Your task to perform on an android device: change timer sound Image 0: 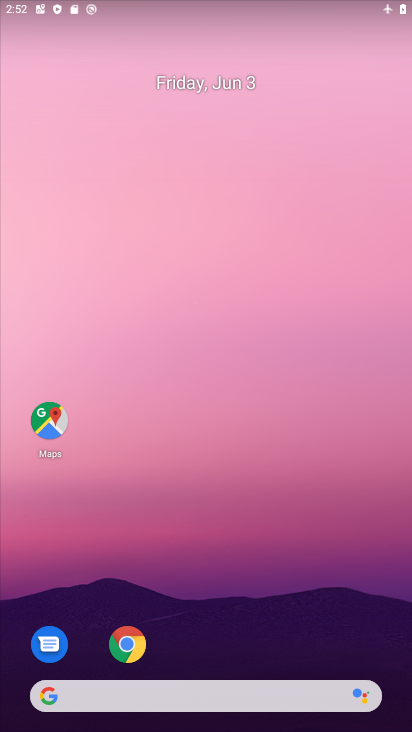
Step 0: drag from (210, 648) to (246, 368)
Your task to perform on an android device: change timer sound Image 1: 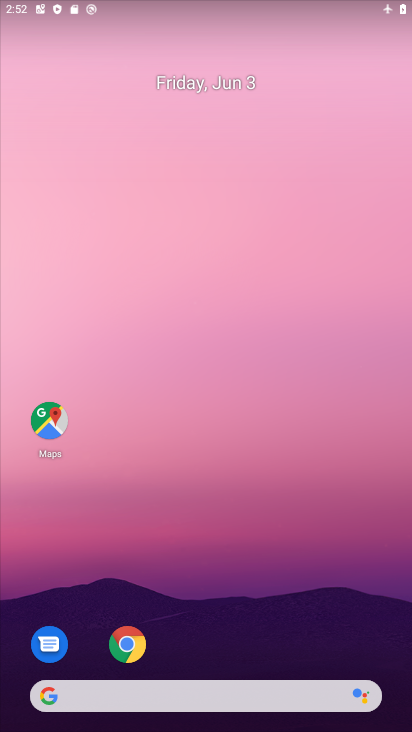
Step 1: drag from (172, 655) to (176, 317)
Your task to perform on an android device: change timer sound Image 2: 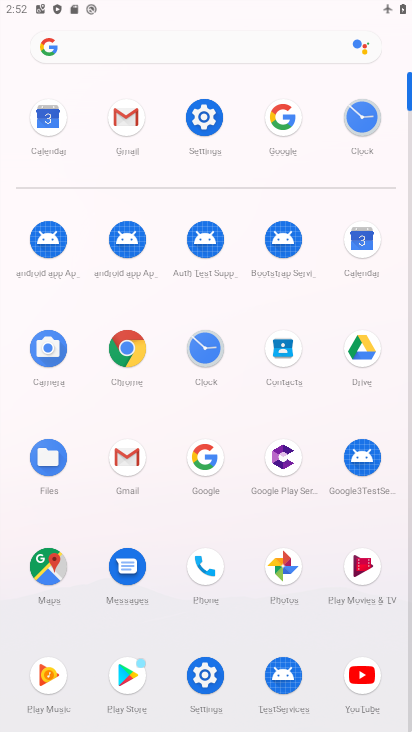
Step 2: click (357, 130)
Your task to perform on an android device: change timer sound Image 3: 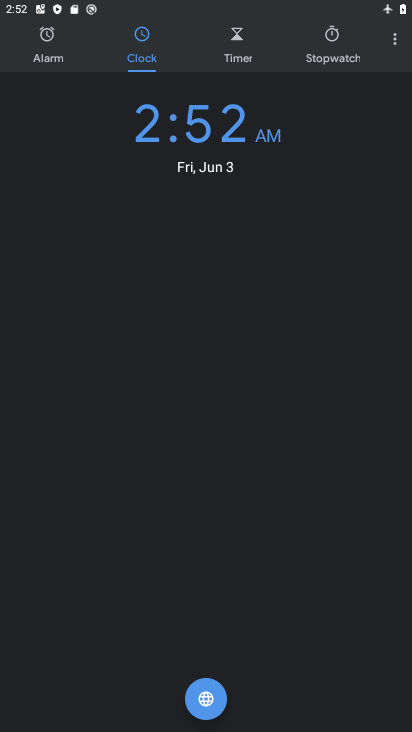
Step 3: click (394, 42)
Your task to perform on an android device: change timer sound Image 4: 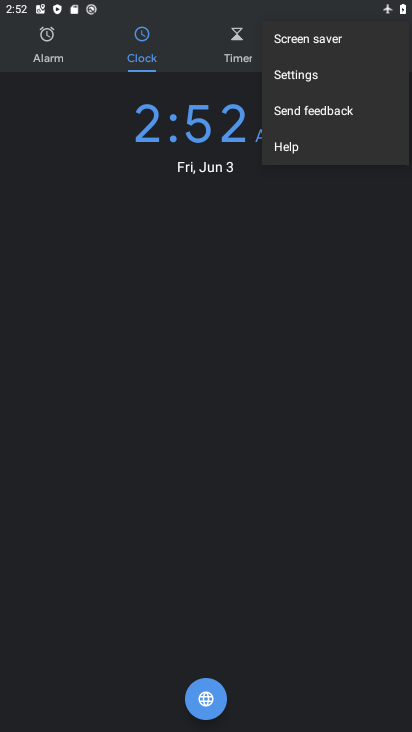
Step 4: click (315, 77)
Your task to perform on an android device: change timer sound Image 5: 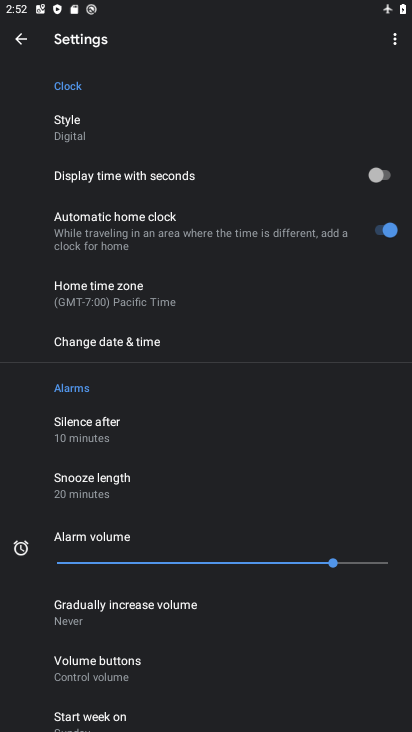
Step 5: drag from (166, 666) to (116, 576)
Your task to perform on an android device: change timer sound Image 6: 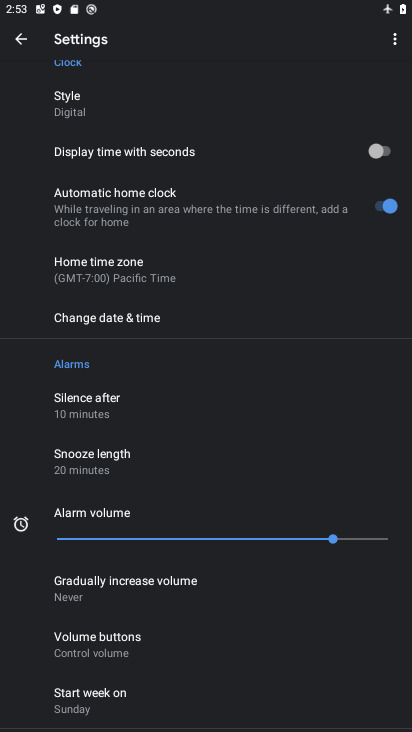
Step 6: drag from (147, 624) to (195, 292)
Your task to perform on an android device: change timer sound Image 7: 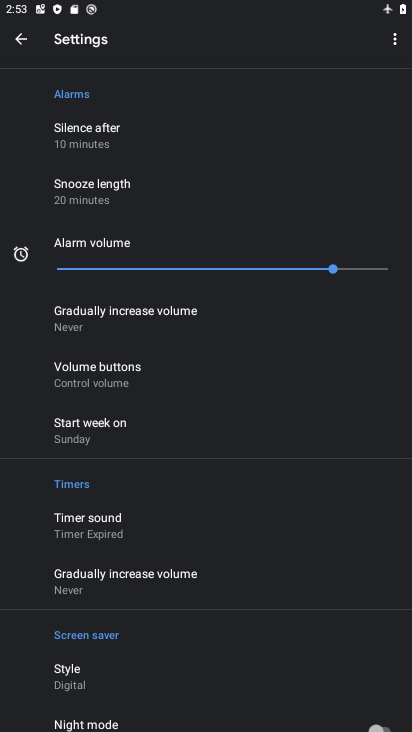
Step 7: click (112, 526)
Your task to perform on an android device: change timer sound Image 8: 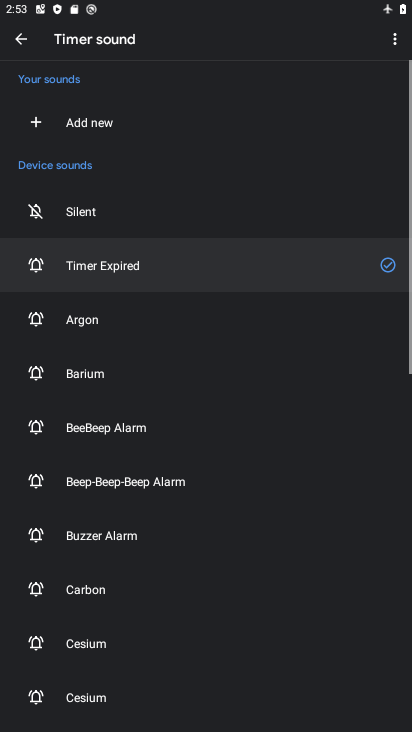
Step 8: click (140, 555)
Your task to perform on an android device: change timer sound Image 9: 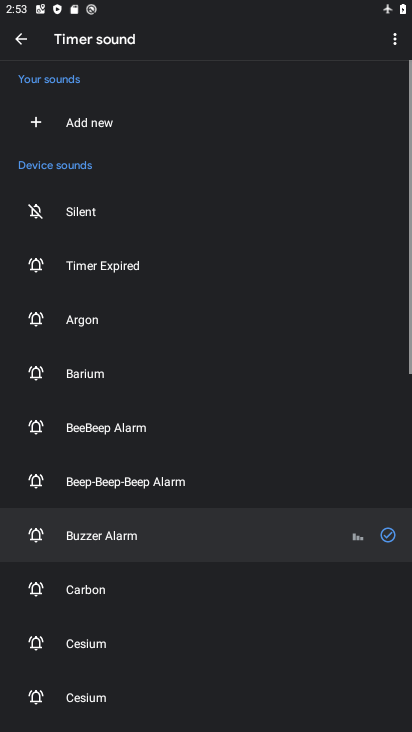
Step 9: task complete